Your task to perform on an android device: turn vacation reply on in the gmail app Image 0: 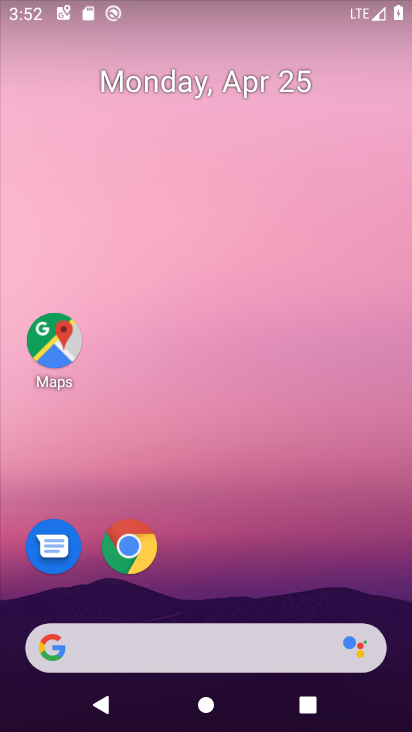
Step 0: drag from (286, 605) to (294, 81)
Your task to perform on an android device: turn vacation reply on in the gmail app Image 1: 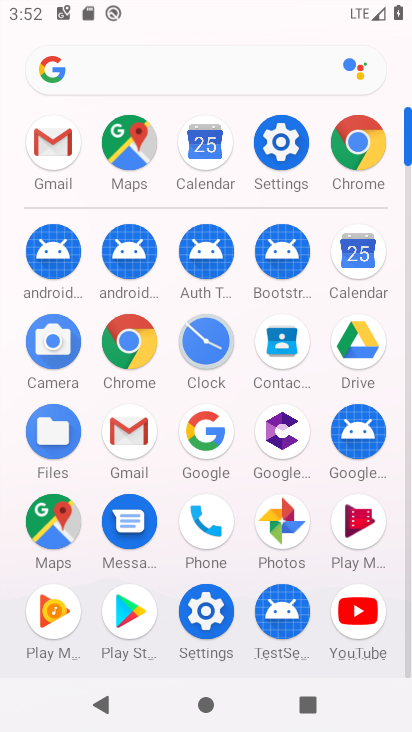
Step 1: click (133, 434)
Your task to perform on an android device: turn vacation reply on in the gmail app Image 2: 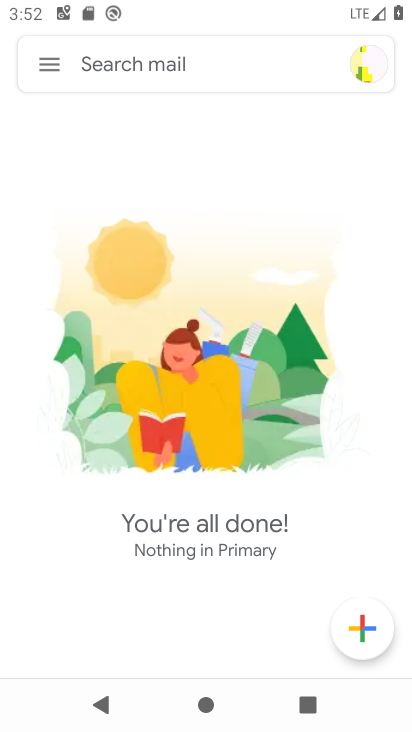
Step 2: click (41, 70)
Your task to perform on an android device: turn vacation reply on in the gmail app Image 3: 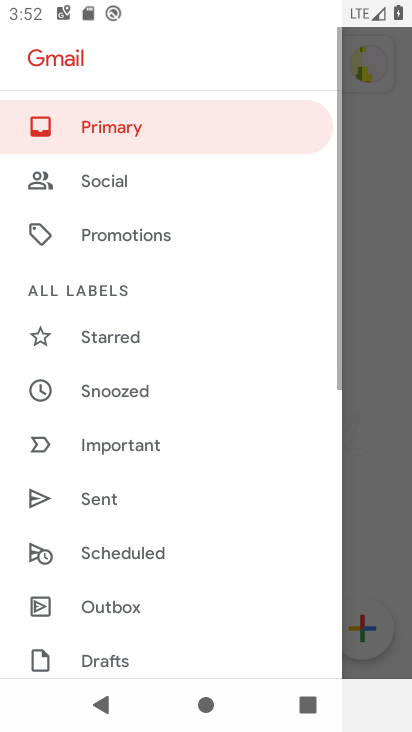
Step 3: drag from (161, 535) to (258, 164)
Your task to perform on an android device: turn vacation reply on in the gmail app Image 4: 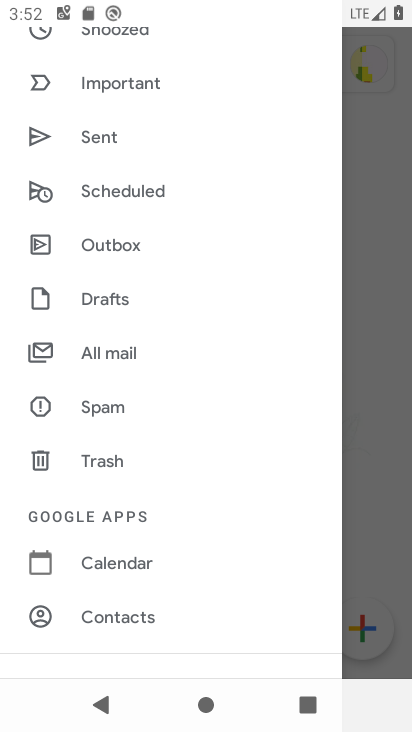
Step 4: drag from (138, 572) to (179, 171)
Your task to perform on an android device: turn vacation reply on in the gmail app Image 5: 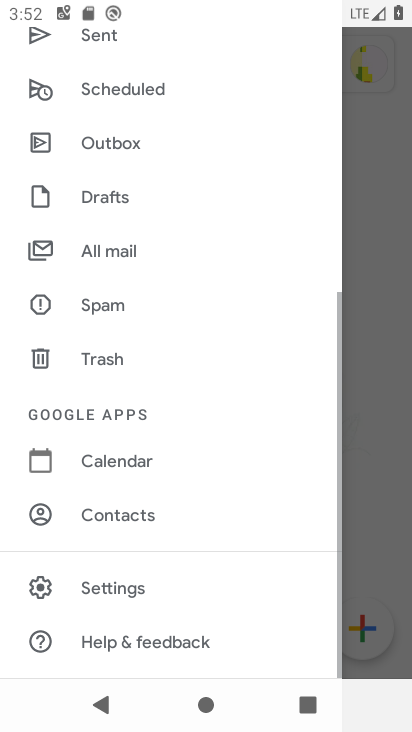
Step 5: click (133, 582)
Your task to perform on an android device: turn vacation reply on in the gmail app Image 6: 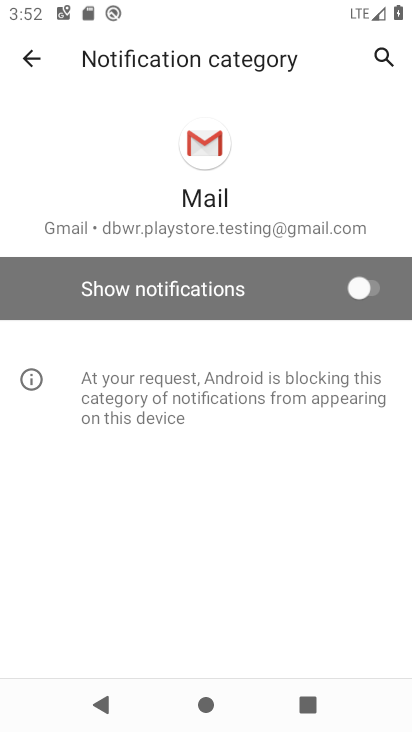
Step 6: click (28, 58)
Your task to perform on an android device: turn vacation reply on in the gmail app Image 7: 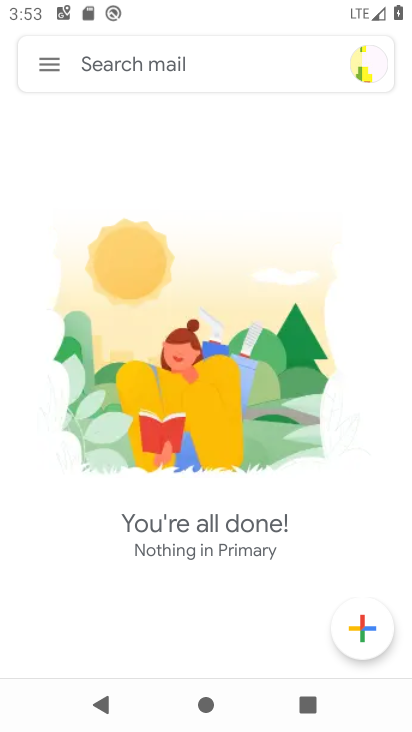
Step 7: click (54, 56)
Your task to perform on an android device: turn vacation reply on in the gmail app Image 8: 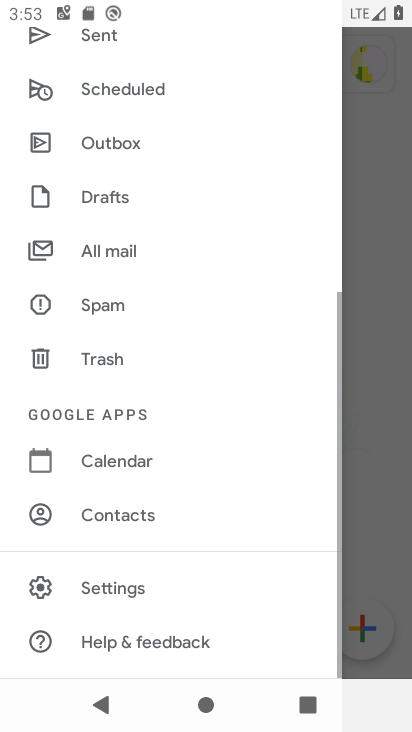
Step 8: drag from (166, 584) to (152, 548)
Your task to perform on an android device: turn vacation reply on in the gmail app Image 9: 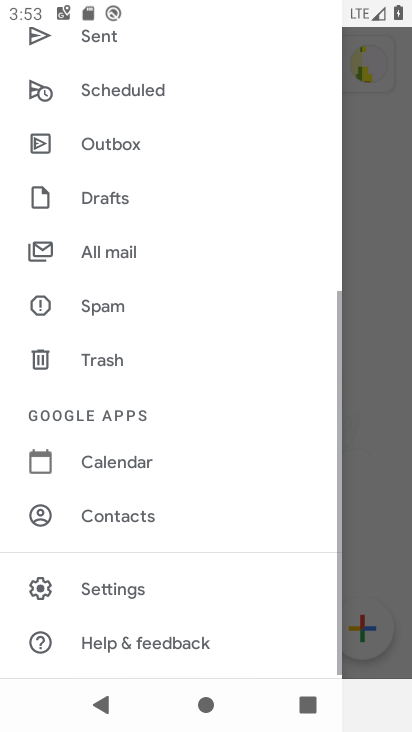
Step 9: click (152, 575)
Your task to perform on an android device: turn vacation reply on in the gmail app Image 10: 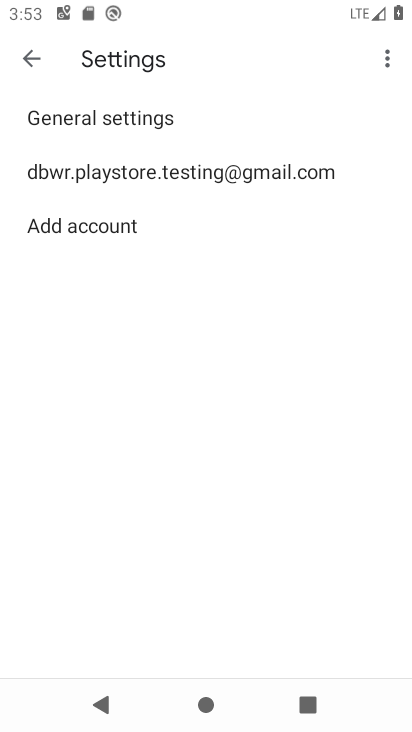
Step 10: click (203, 164)
Your task to perform on an android device: turn vacation reply on in the gmail app Image 11: 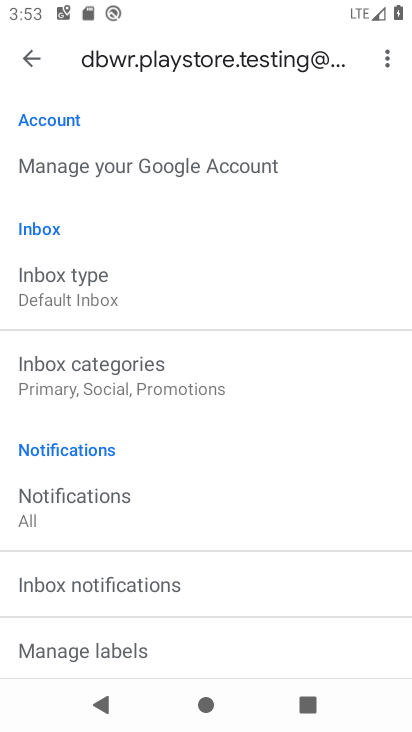
Step 11: drag from (165, 533) to (225, 294)
Your task to perform on an android device: turn vacation reply on in the gmail app Image 12: 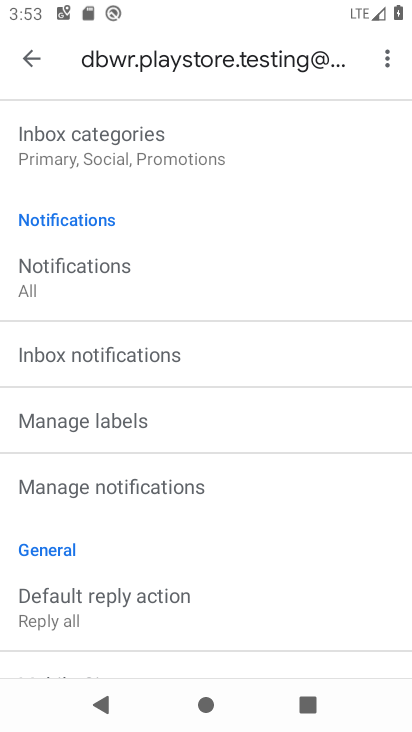
Step 12: drag from (217, 556) to (217, 291)
Your task to perform on an android device: turn vacation reply on in the gmail app Image 13: 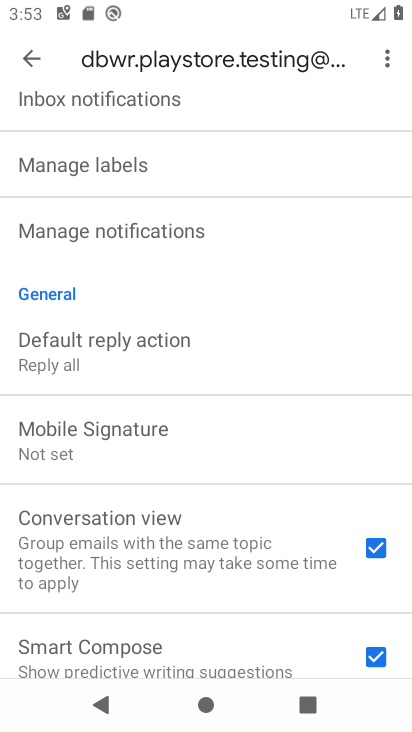
Step 13: drag from (196, 559) to (262, 148)
Your task to perform on an android device: turn vacation reply on in the gmail app Image 14: 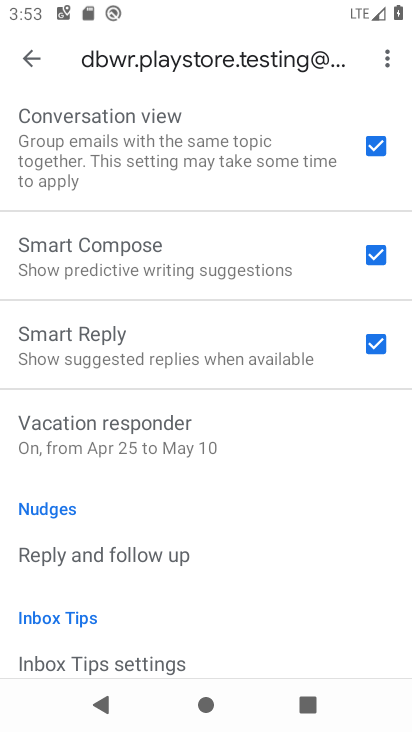
Step 14: click (180, 448)
Your task to perform on an android device: turn vacation reply on in the gmail app Image 15: 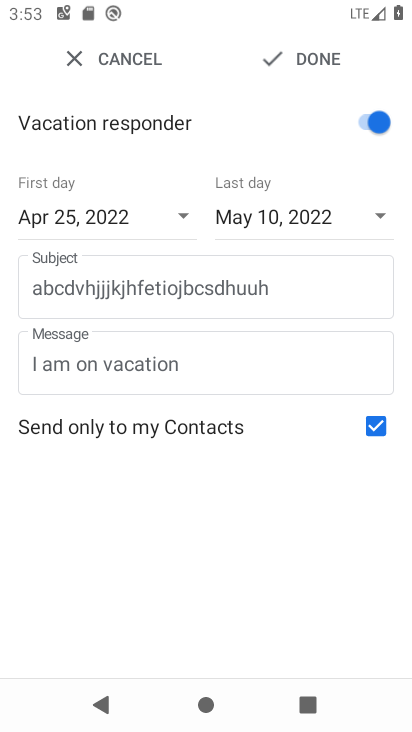
Step 15: click (325, 53)
Your task to perform on an android device: turn vacation reply on in the gmail app Image 16: 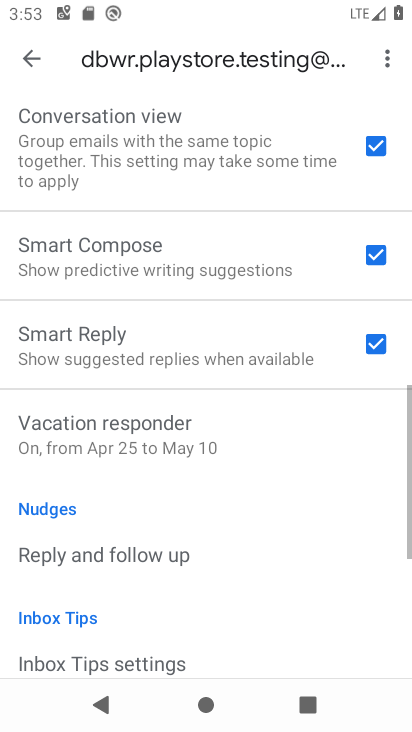
Step 16: task complete